Your task to perform on an android device: Go to calendar. Show me events next week Image 0: 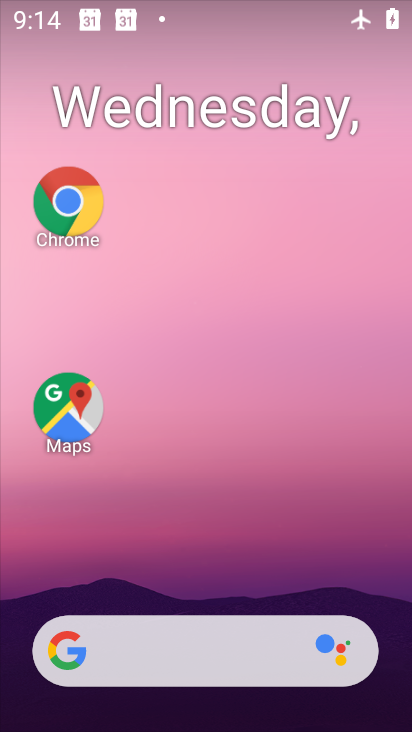
Step 0: drag from (205, 593) to (61, 7)
Your task to perform on an android device: Go to calendar. Show me events next week Image 1: 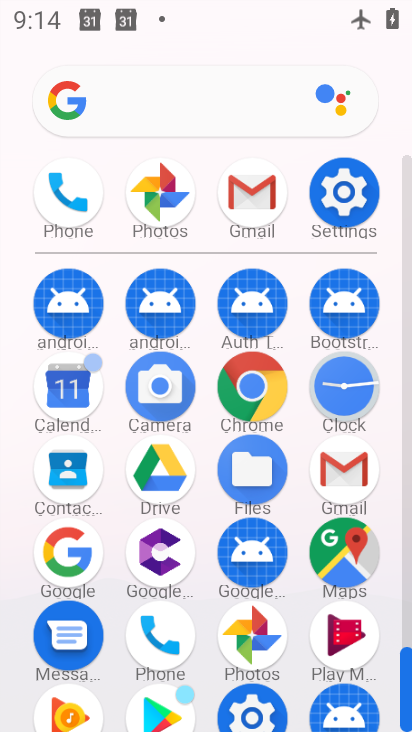
Step 1: click (66, 381)
Your task to perform on an android device: Go to calendar. Show me events next week Image 2: 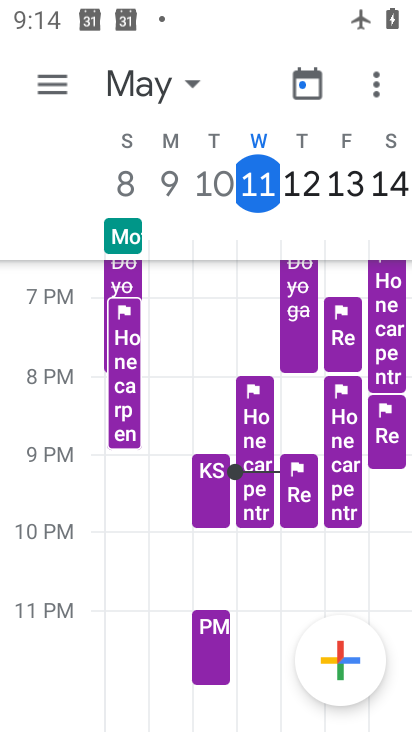
Step 2: task complete